Your task to perform on an android device: check google app version Image 0: 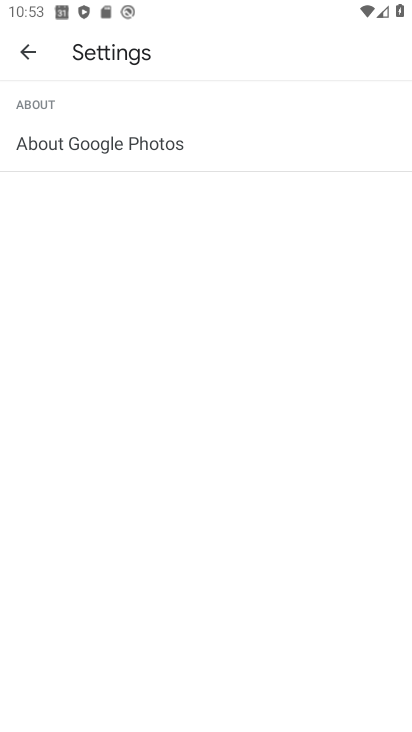
Step 0: press home button
Your task to perform on an android device: check google app version Image 1: 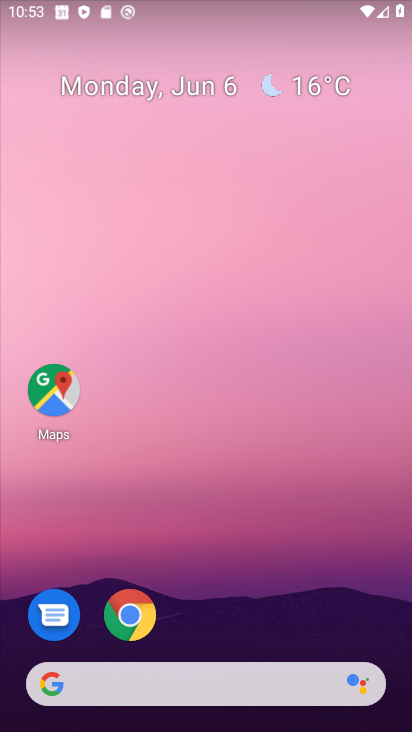
Step 1: drag from (149, 725) to (135, 9)
Your task to perform on an android device: check google app version Image 2: 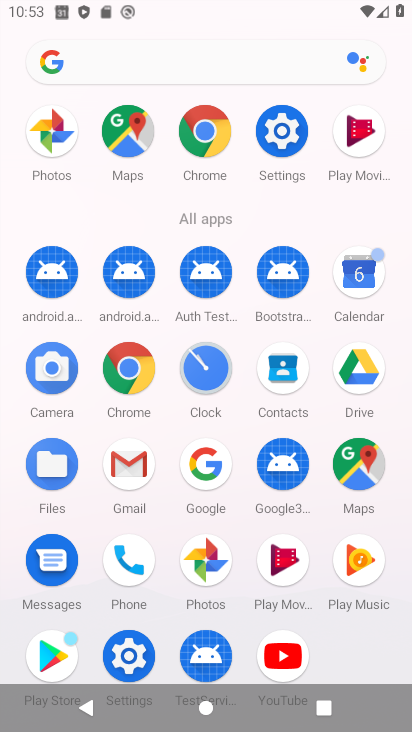
Step 2: click (199, 470)
Your task to perform on an android device: check google app version Image 3: 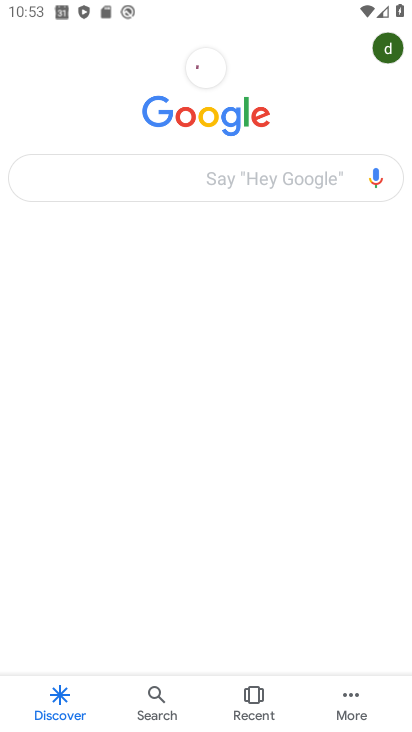
Step 3: click (351, 703)
Your task to perform on an android device: check google app version Image 4: 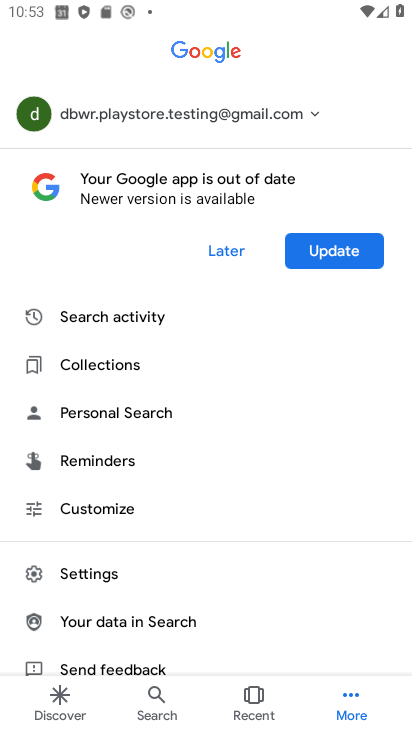
Step 4: click (81, 577)
Your task to perform on an android device: check google app version Image 5: 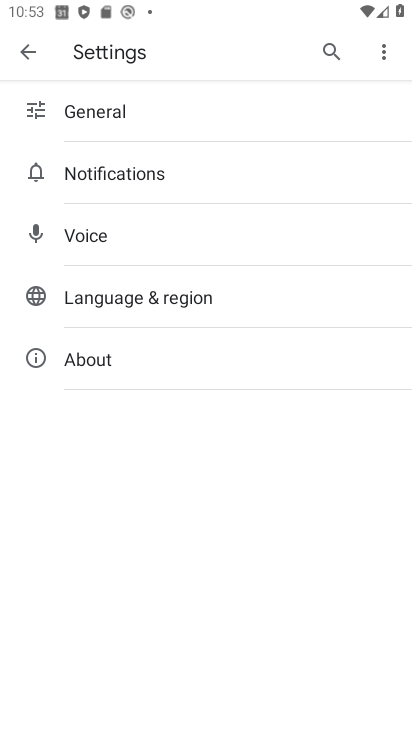
Step 5: click (70, 366)
Your task to perform on an android device: check google app version Image 6: 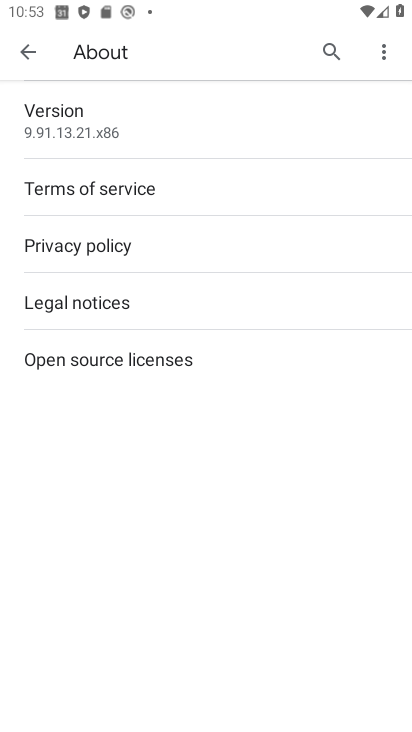
Step 6: click (39, 133)
Your task to perform on an android device: check google app version Image 7: 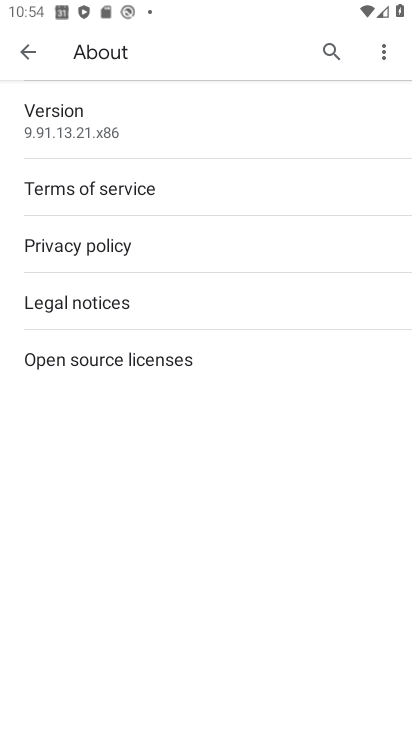
Step 7: task complete